Your task to perform on an android device: turn off location Image 0: 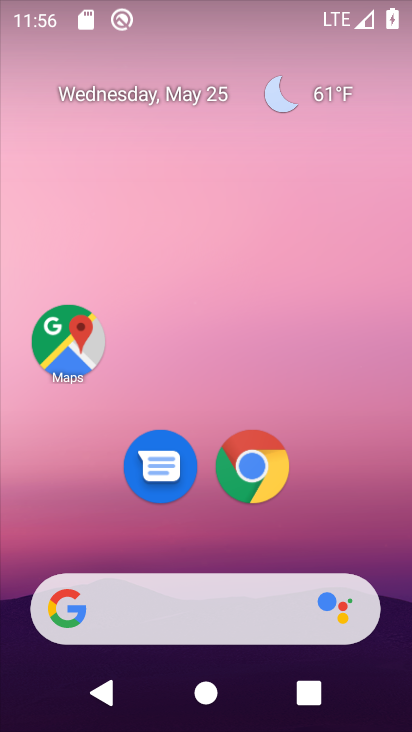
Step 0: drag from (213, 522) to (340, 17)
Your task to perform on an android device: turn off location Image 1: 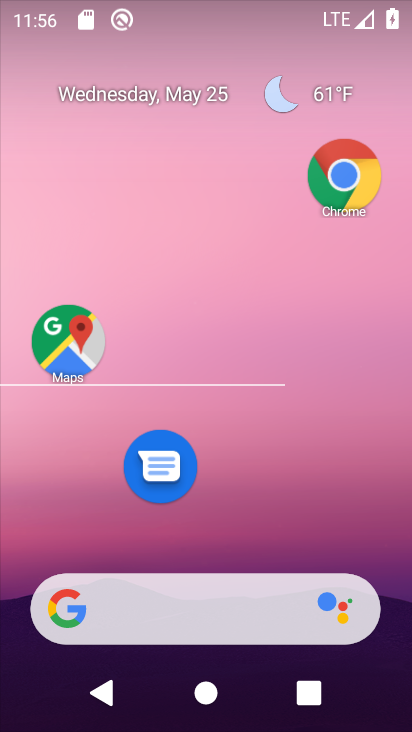
Step 1: drag from (250, 533) to (357, 17)
Your task to perform on an android device: turn off location Image 2: 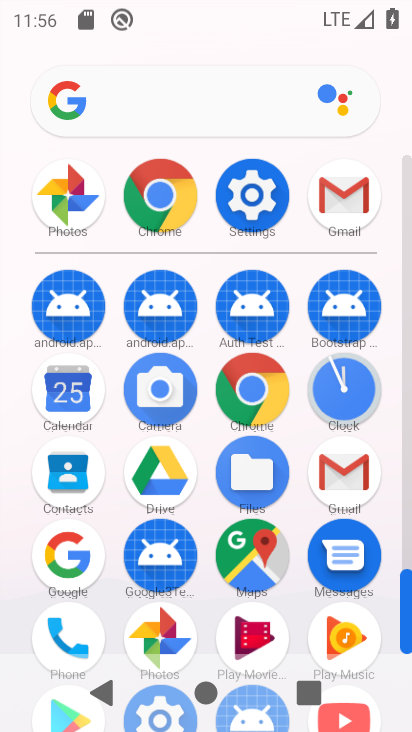
Step 2: click (263, 189)
Your task to perform on an android device: turn off location Image 3: 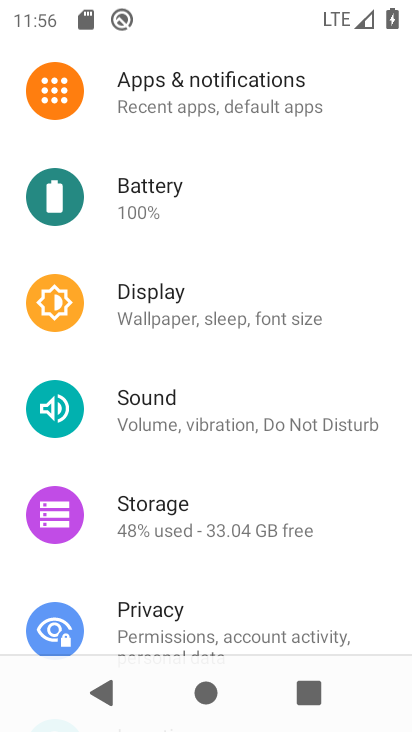
Step 3: drag from (199, 262) to (144, 615)
Your task to perform on an android device: turn off location Image 4: 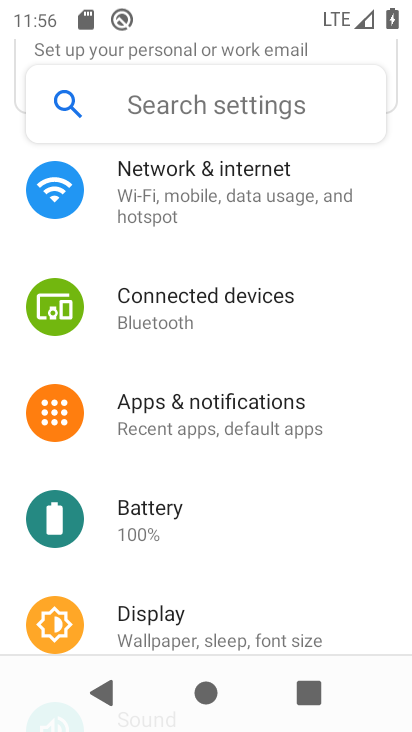
Step 4: drag from (208, 500) to (252, 293)
Your task to perform on an android device: turn off location Image 5: 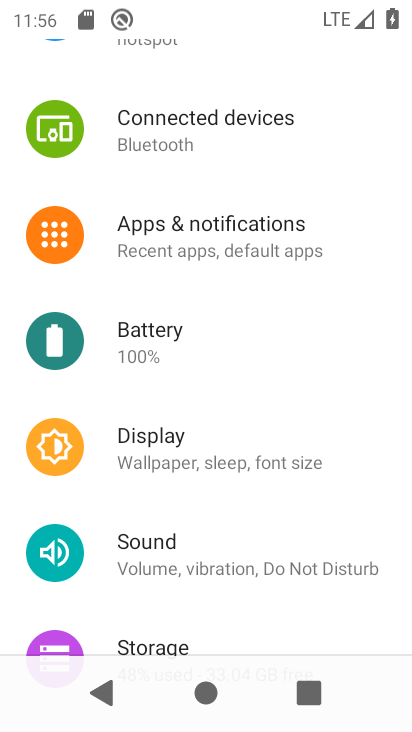
Step 5: drag from (164, 562) to (222, 295)
Your task to perform on an android device: turn off location Image 6: 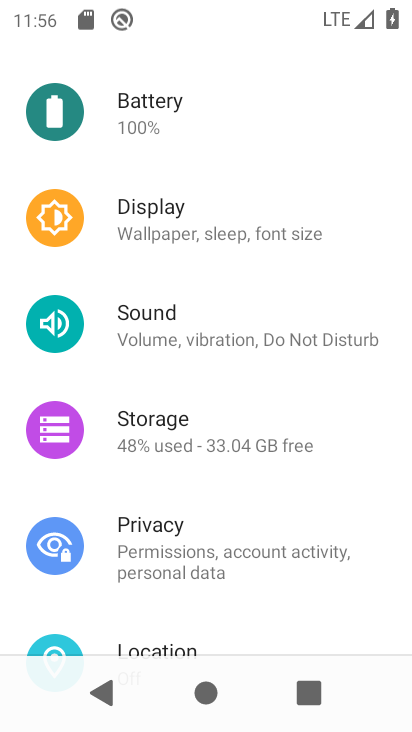
Step 6: drag from (120, 594) to (145, 468)
Your task to perform on an android device: turn off location Image 7: 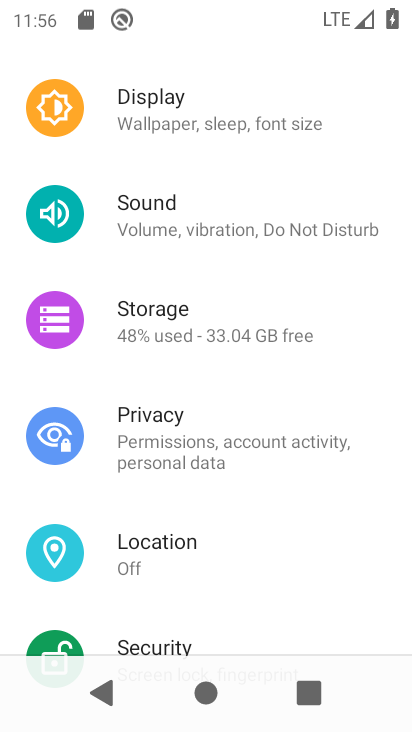
Step 7: click (179, 563)
Your task to perform on an android device: turn off location Image 8: 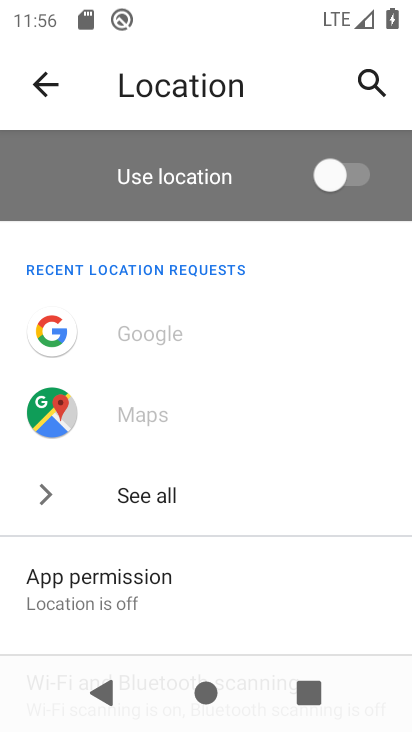
Step 8: task complete